Your task to perform on an android device: Search for sushi restaurants on Maps Image 0: 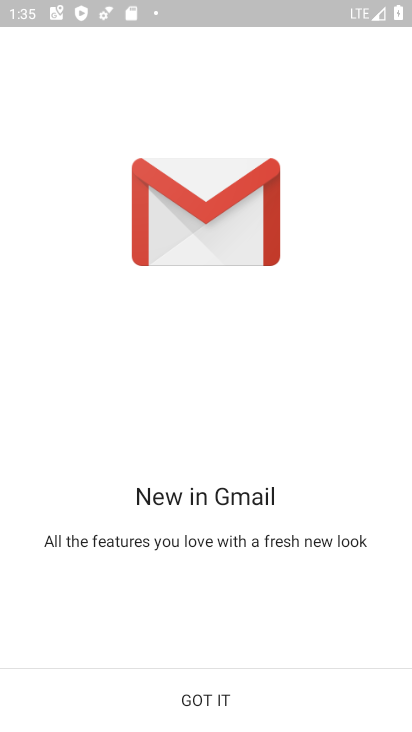
Step 0: press home button
Your task to perform on an android device: Search for sushi restaurants on Maps Image 1: 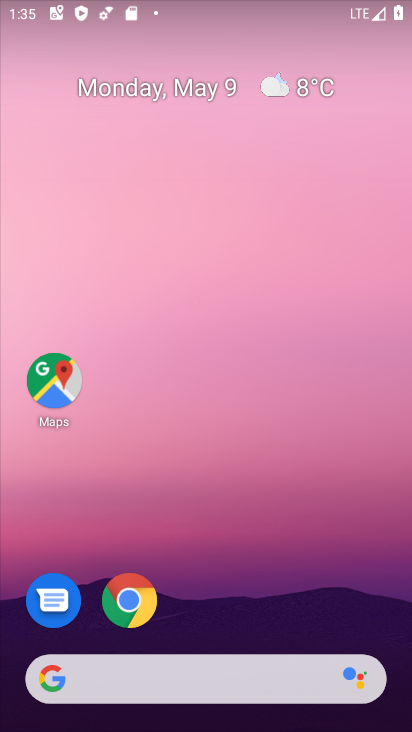
Step 1: drag from (215, 622) to (278, 108)
Your task to perform on an android device: Search for sushi restaurants on Maps Image 2: 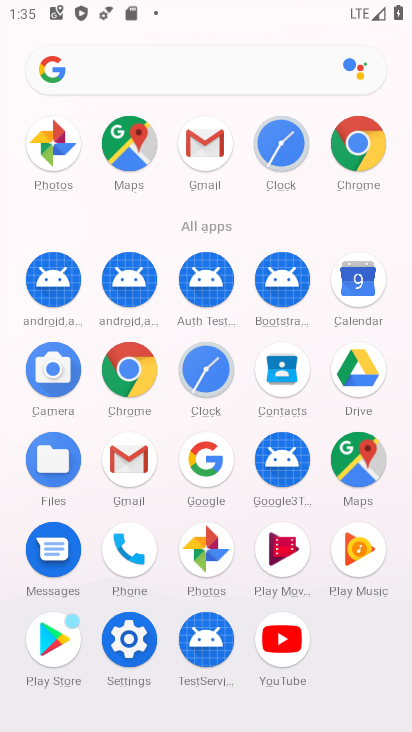
Step 2: click (356, 457)
Your task to perform on an android device: Search for sushi restaurants on Maps Image 3: 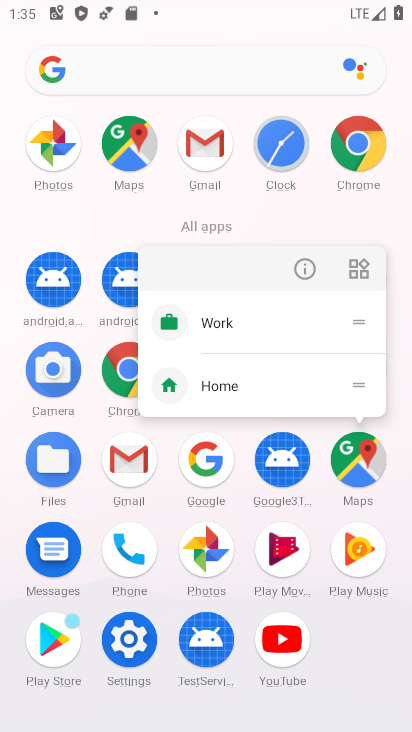
Step 3: click (357, 455)
Your task to perform on an android device: Search for sushi restaurants on Maps Image 4: 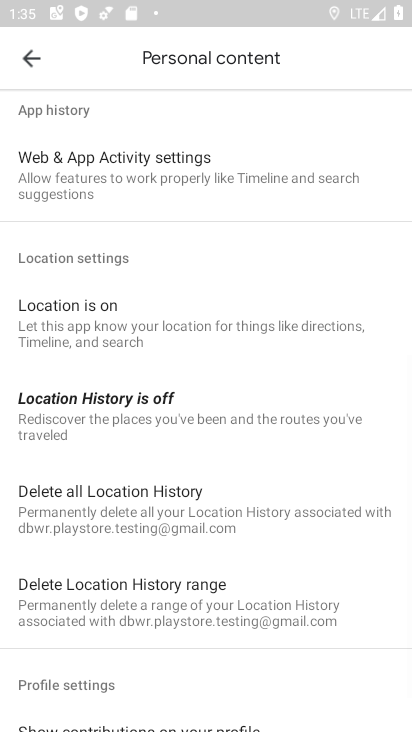
Step 4: click (29, 63)
Your task to perform on an android device: Search for sushi restaurants on Maps Image 5: 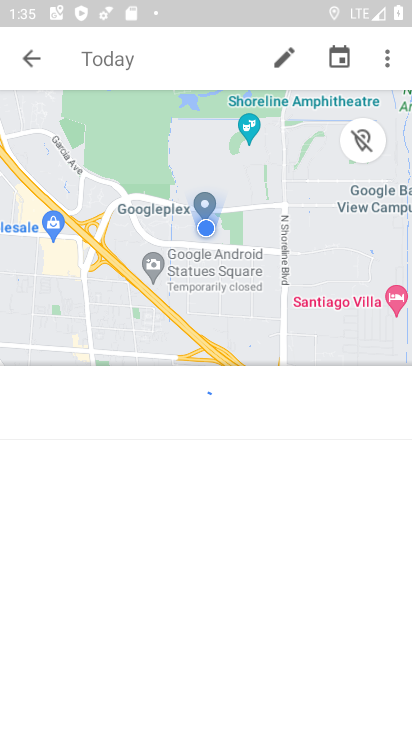
Step 5: click (29, 65)
Your task to perform on an android device: Search for sushi restaurants on Maps Image 6: 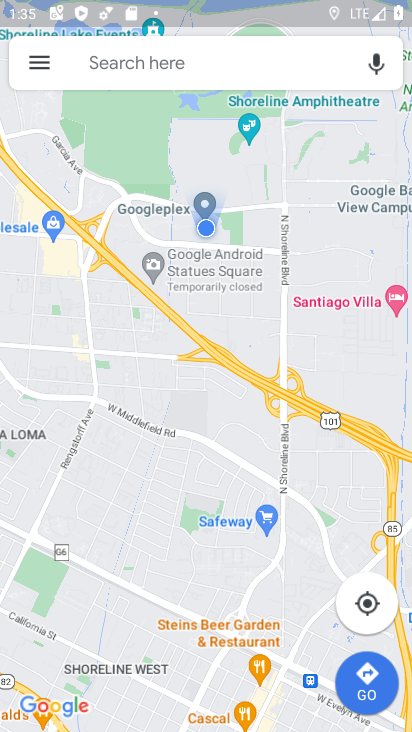
Step 6: click (169, 64)
Your task to perform on an android device: Search for sushi restaurants on Maps Image 7: 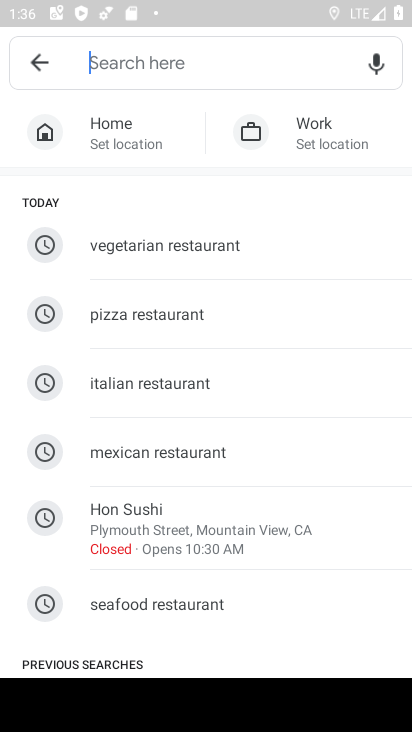
Step 7: drag from (143, 580) to (147, 226)
Your task to perform on an android device: Search for sushi restaurants on Maps Image 8: 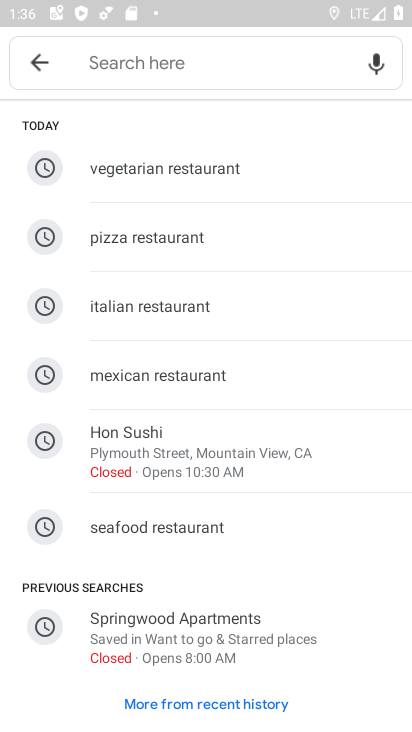
Step 8: drag from (140, 193) to (159, 540)
Your task to perform on an android device: Search for sushi restaurants on Maps Image 9: 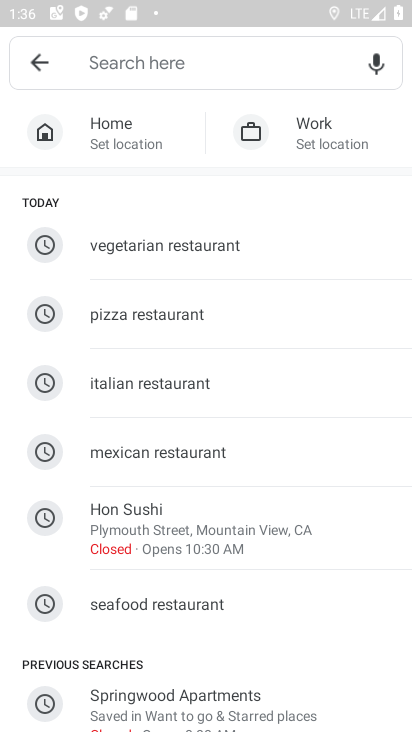
Step 9: click (125, 61)
Your task to perform on an android device: Search for sushi restaurants on Maps Image 10: 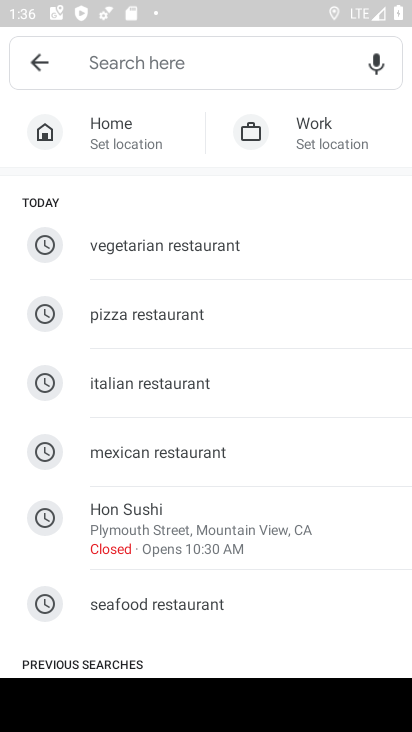
Step 10: type "sushi"
Your task to perform on an android device: Search for sushi restaurants on Maps Image 11: 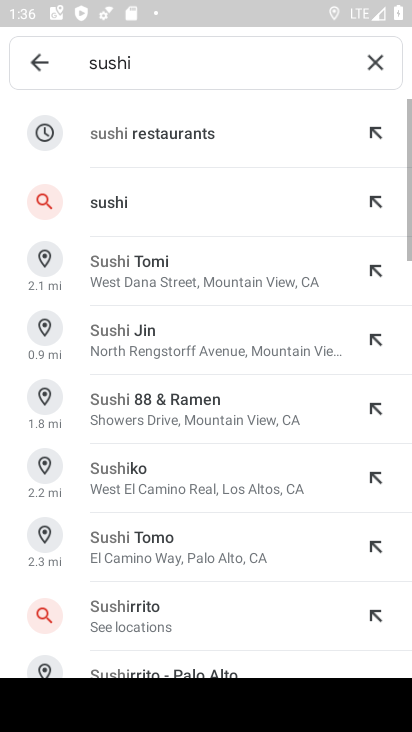
Step 11: click (167, 151)
Your task to perform on an android device: Search for sushi restaurants on Maps Image 12: 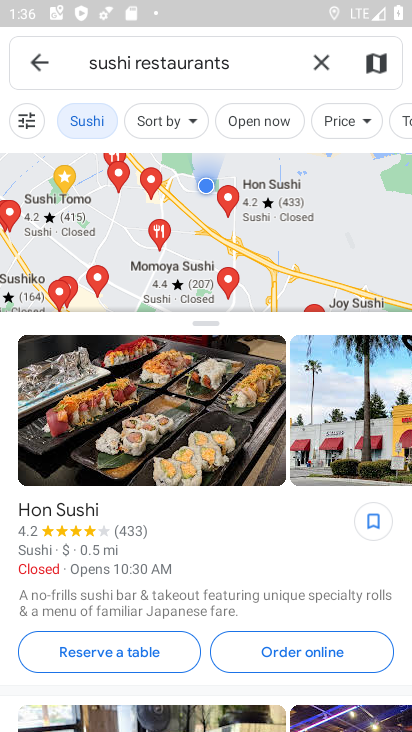
Step 12: task complete